Your task to perform on an android device: Open Google Maps and go to "Timeline" Image 0: 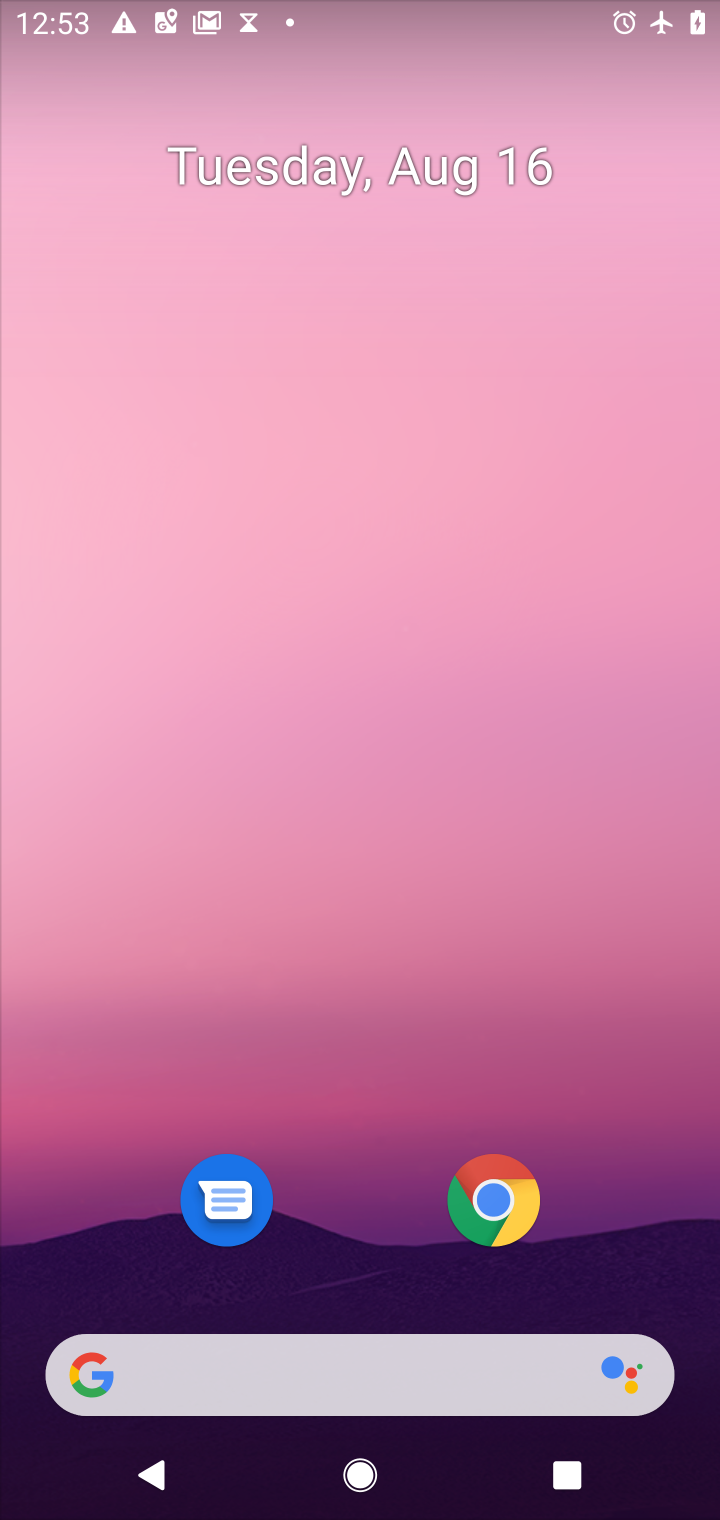
Step 0: drag from (374, 1243) to (374, 337)
Your task to perform on an android device: Open Google Maps and go to "Timeline" Image 1: 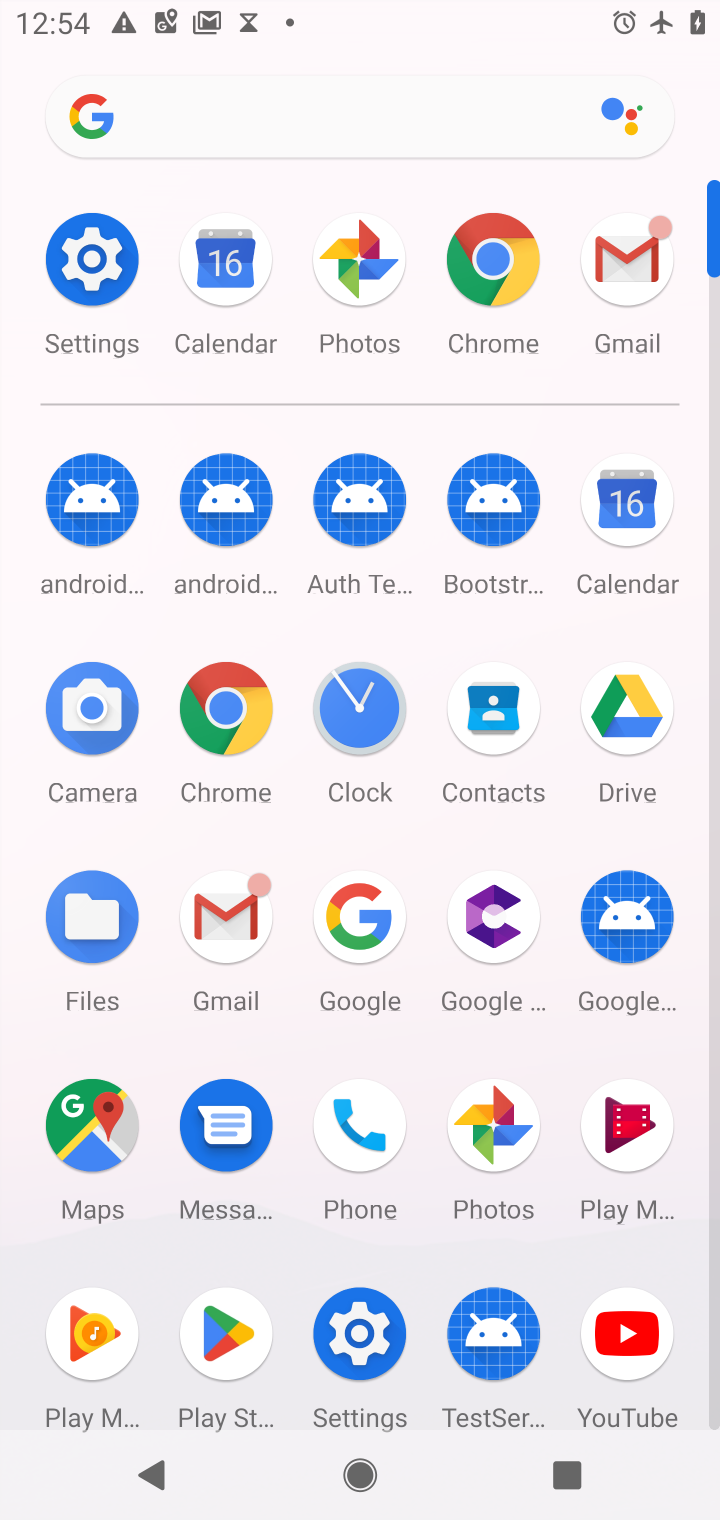
Step 1: click (101, 1124)
Your task to perform on an android device: Open Google Maps and go to "Timeline" Image 2: 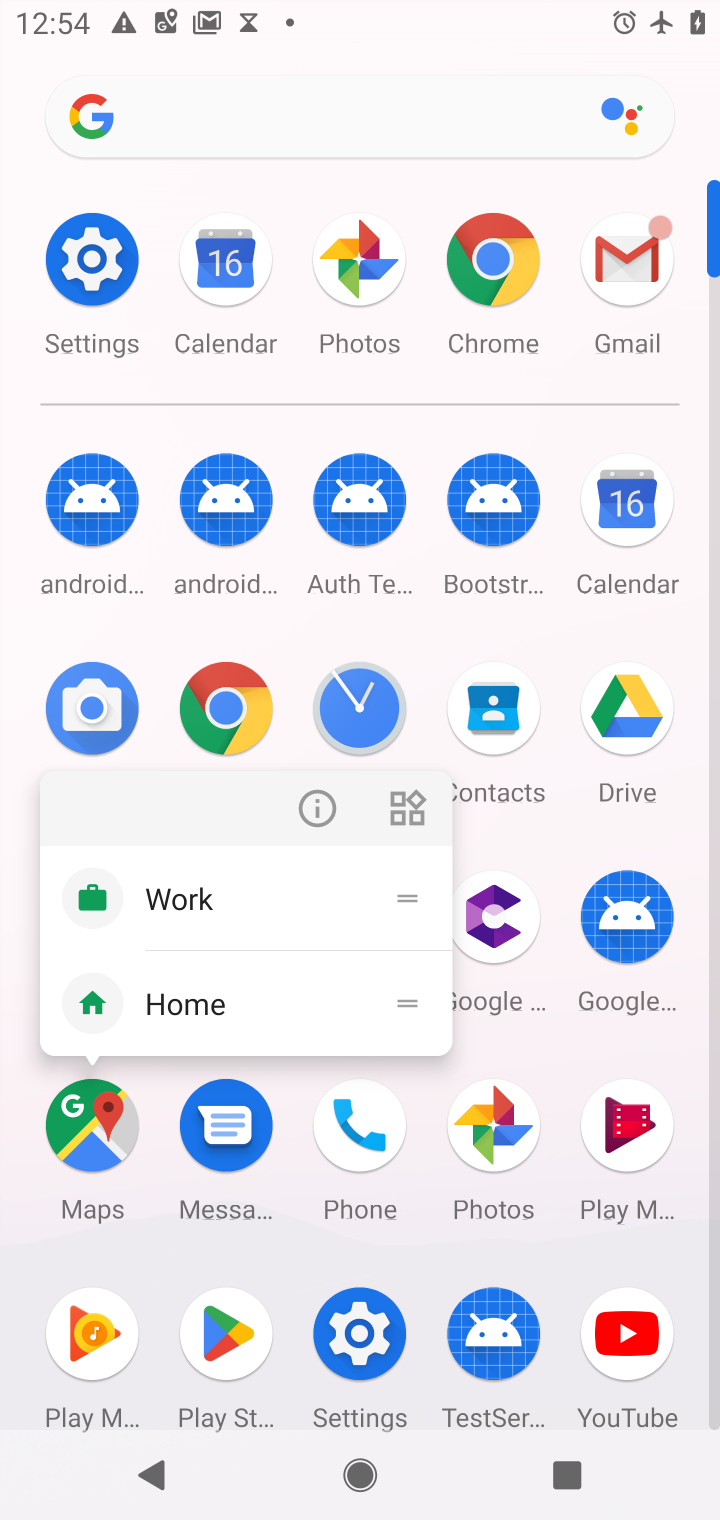
Step 2: click (128, 1129)
Your task to perform on an android device: Open Google Maps and go to "Timeline" Image 3: 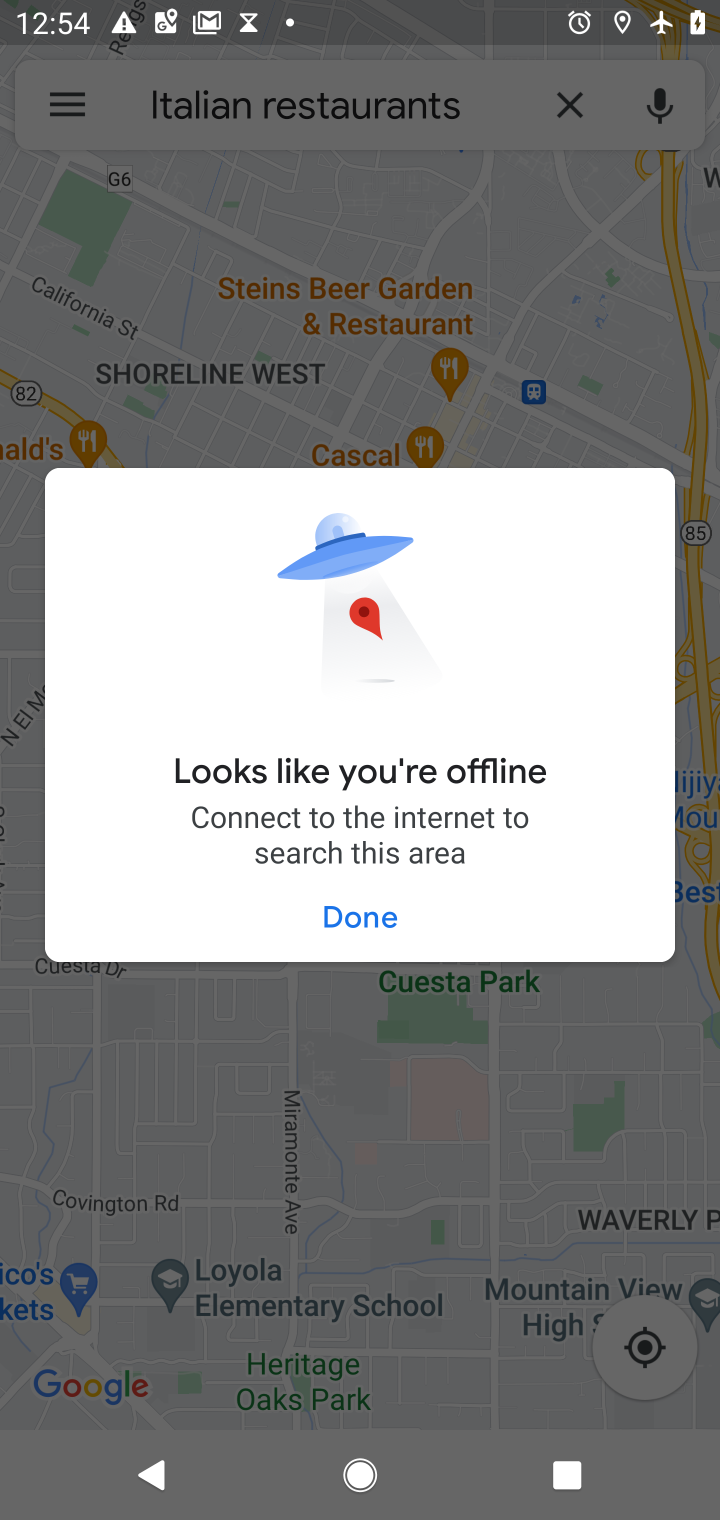
Step 3: click (355, 902)
Your task to perform on an android device: Open Google Maps and go to "Timeline" Image 4: 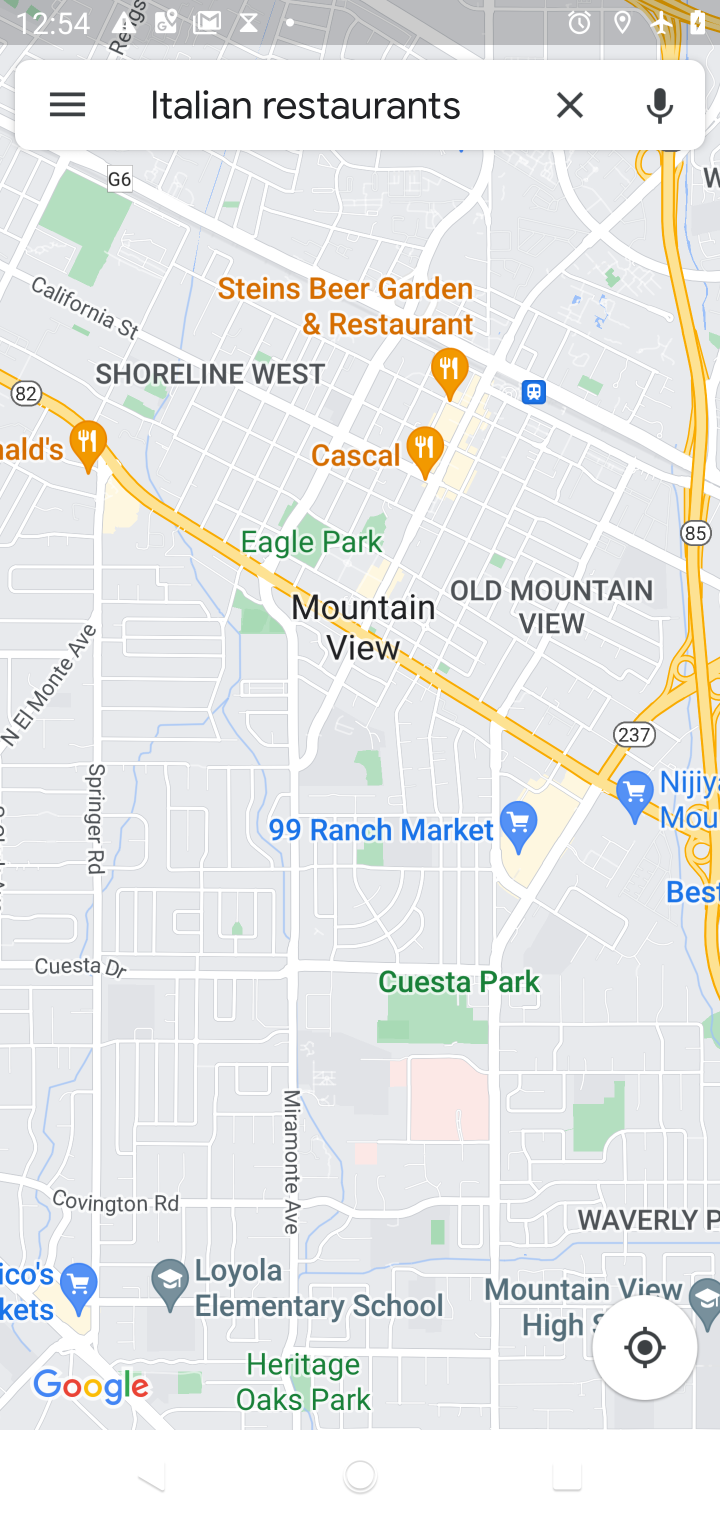
Step 4: click (64, 107)
Your task to perform on an android device: Open Google Maps and go to "Timeline" Image 5: 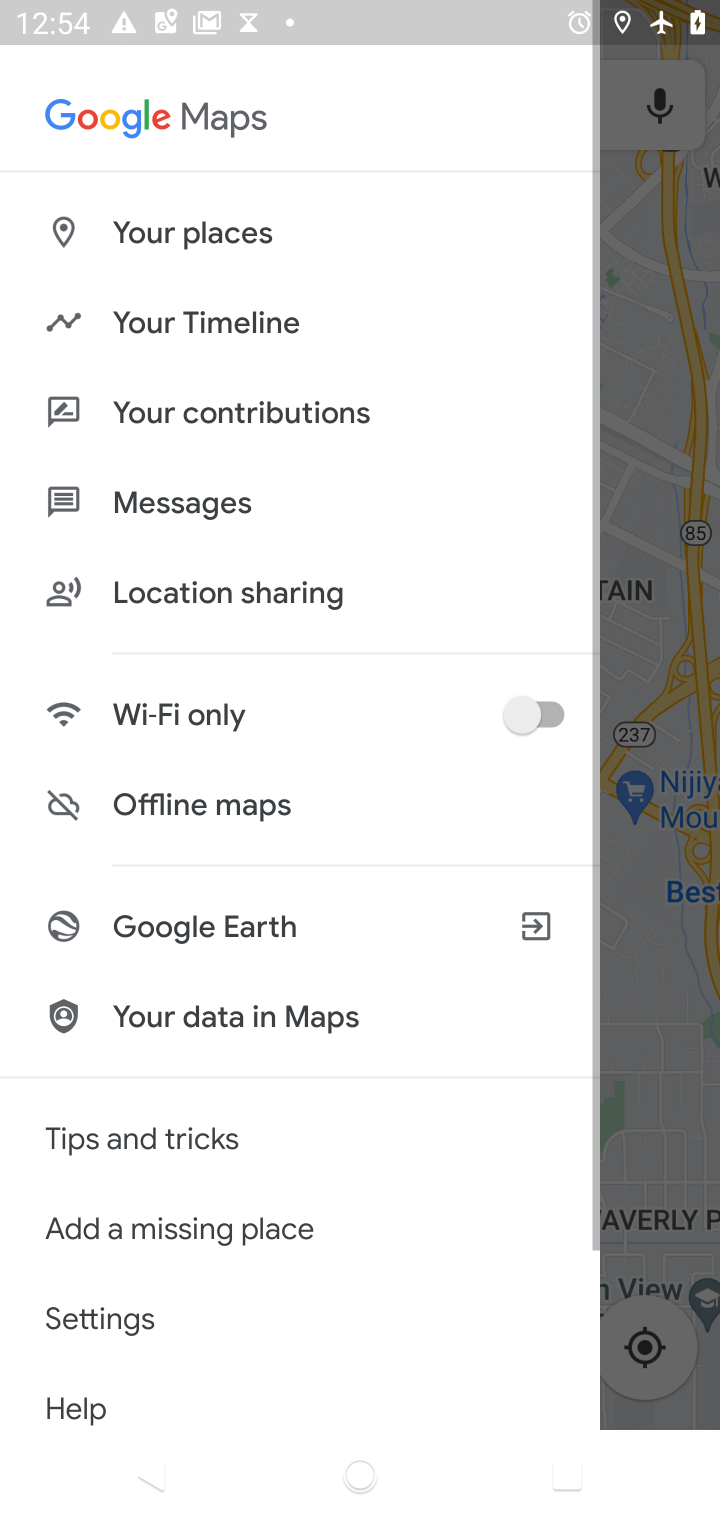
Step 5: click (191, 326)
Your task to perform on an android device: Open Google Maps and go to "Timeline" Image 6: 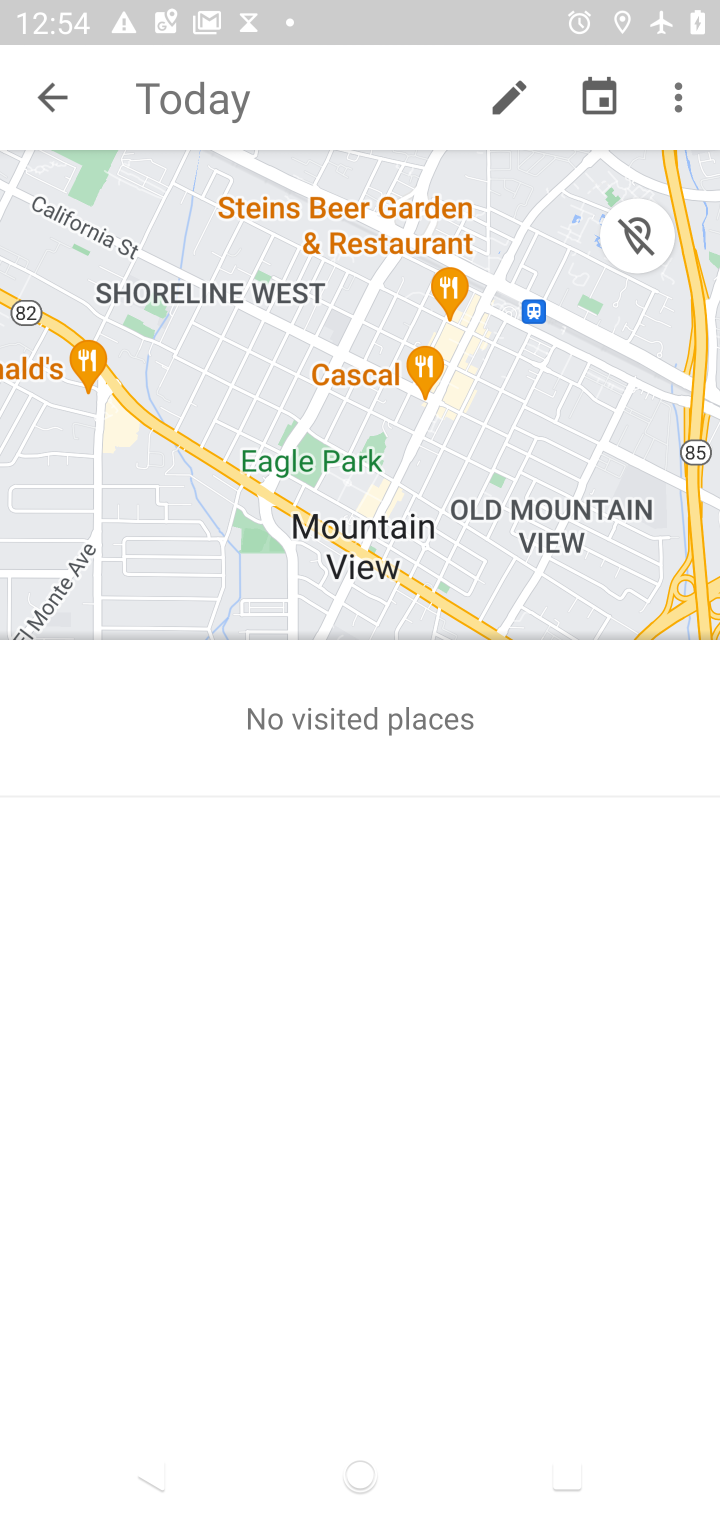
Step 6: task complete